Your task to perform on an android device: What's on my calendar today? Image 0: 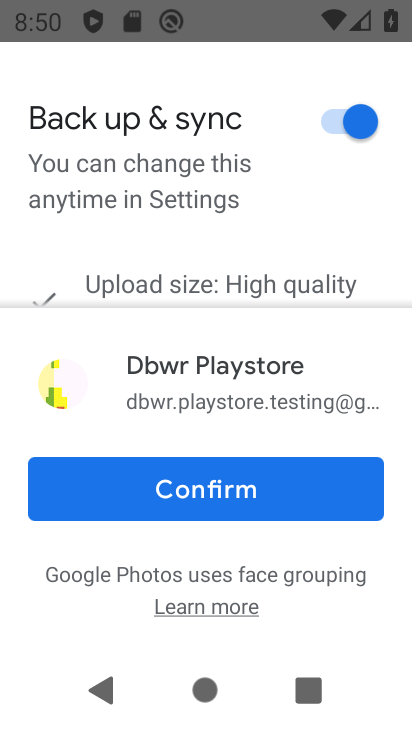
Step 0: press home button
Your task to perform on an android device: What's on my calendar today? Image 1: 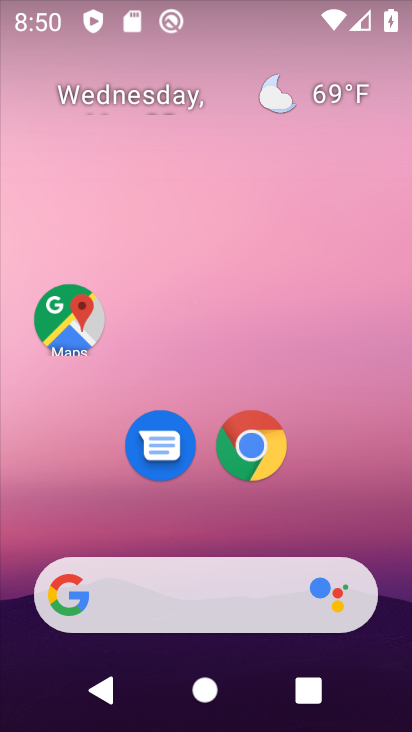
Step 1: drag from (288, 517) to (327, 2)
Your task to perform on an android device: What's on my calendar today? Image 2: 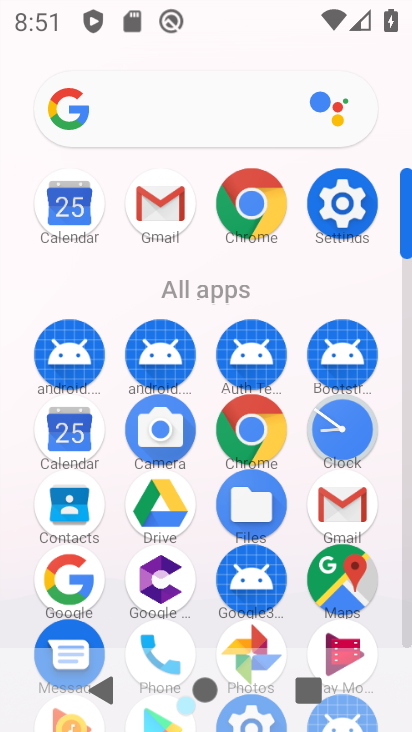
Step 2: click (67, 206)
Your task to perform on an android device: What's on my calendar today? Image 3: 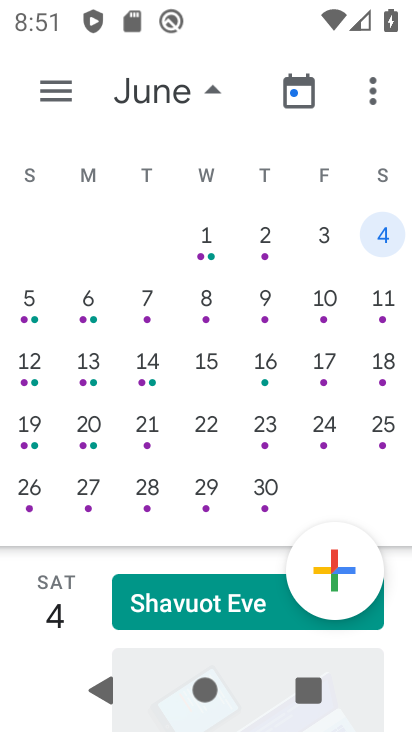
Step 3: click (11, 273)
Your task to perform on an android device: What's on my calendar today? Image 4: 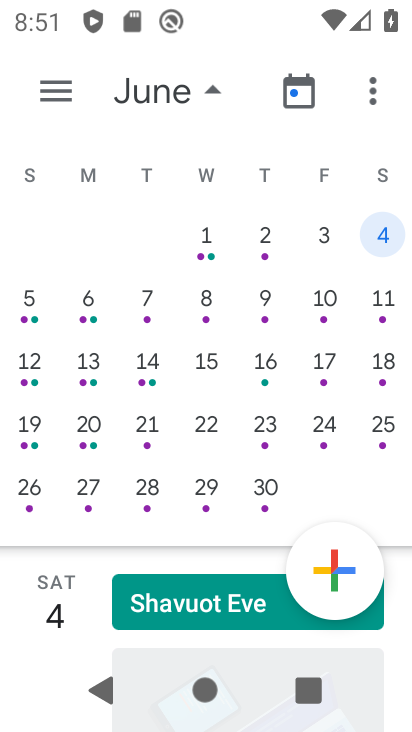
Step 4: drag from (61, 352) to (379, 342)
Your task to perform on an android device: What's on my calendar today? Image 5: 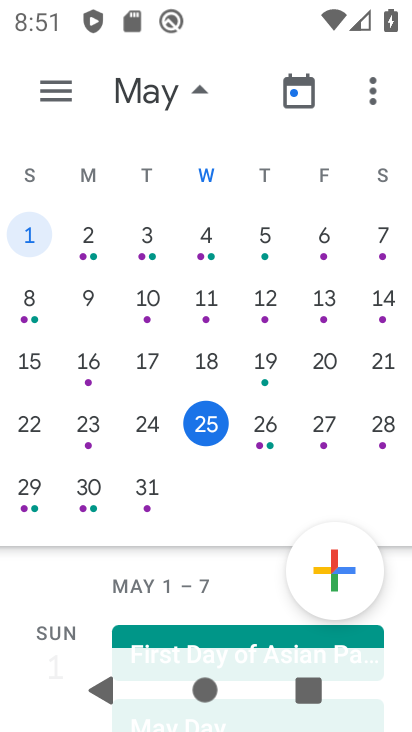
Step 5: click (267, 426)
Your task to perform on an android device: What's on my calendar today? Image 6: 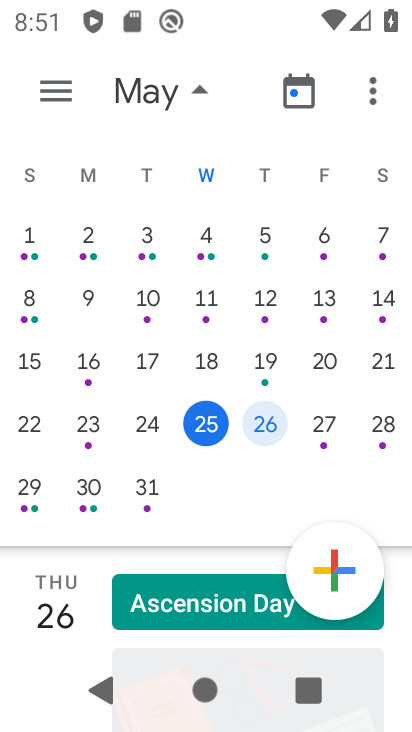
Step 6: click (224, 416)
Your task to perform on an android device: What's on my calendar today? Image 7: 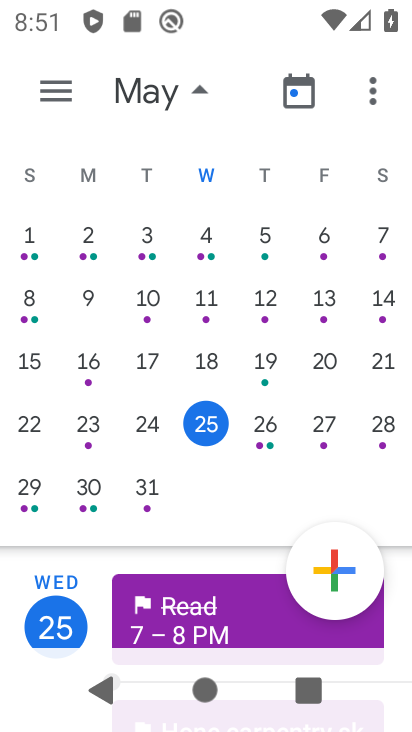
Step 7: click (268, 420)
Your task to perform on an android device: What's on my calendar today? Image 8: 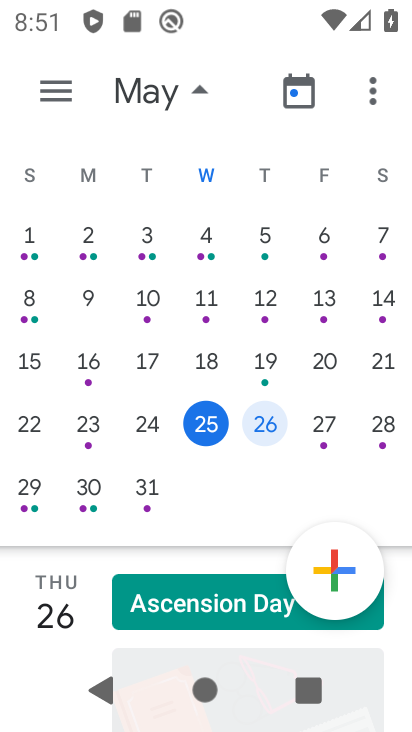
Step 8: task complete